Your task to perform on an android device: Go to Maps Image 0: 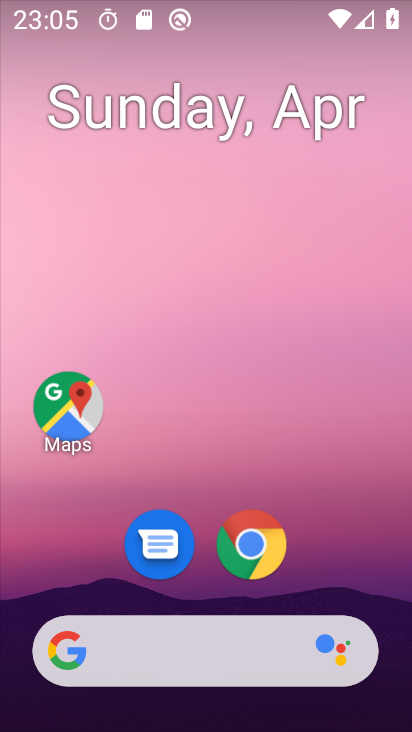
Step 0: drag from (327, 556) to (341, 245)
Your task to perform on an android device: Go to Maps Image 1: 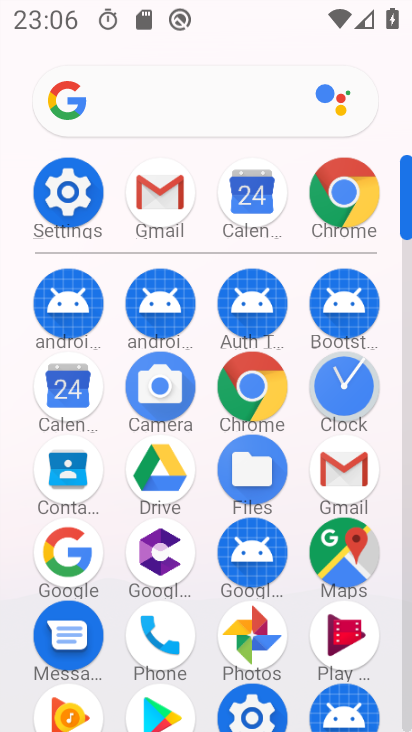
Step 1: drag from (206, 632) to (269, 339)
Your task to perform on an android device: Go to Maps Image 2: 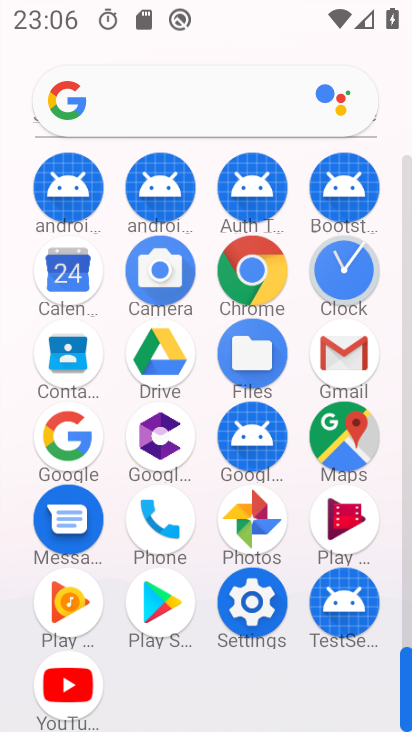
Step 2: click (336, 431)
Your task to perform on an android device: Go to Maps Image 3: 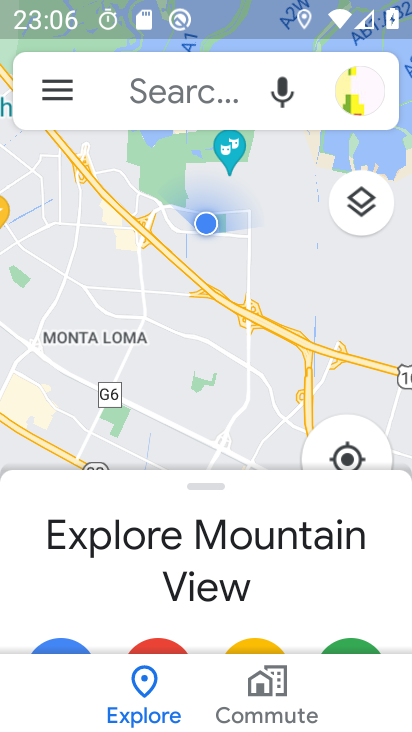
Step 3: task complete